Your task to perform on an android device: Show me the alarms in the clock app Image 0: 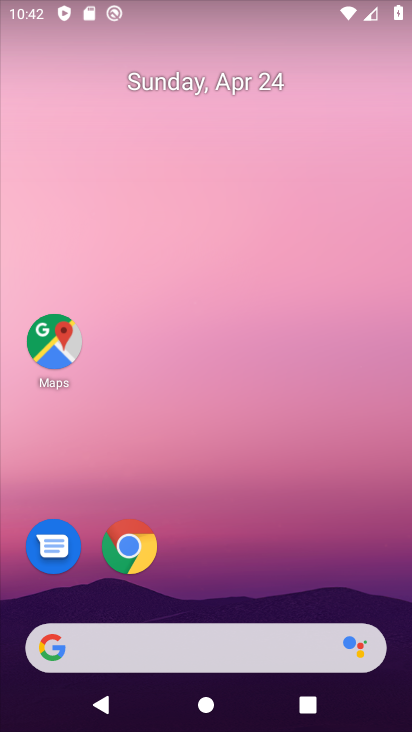
Step 0: drag from (303, 395) to (283, 148)
Your task to perform on an android device: Show me the alarms in the clock app Image 1: 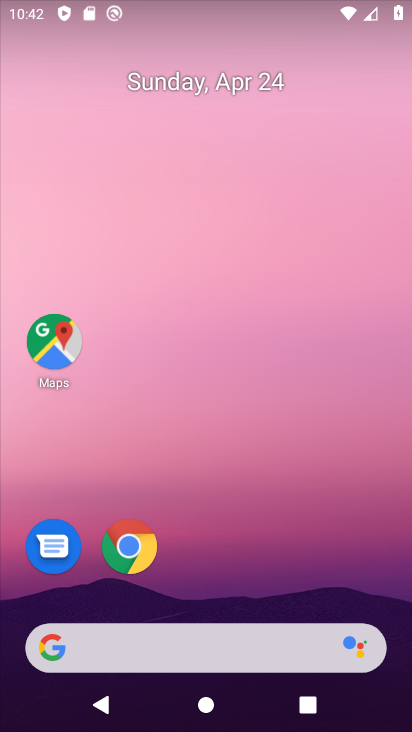
Step 1: drag from (214, 605) to (234, 152)
Your task to perform on an android device: Show me the alarms in the clock app Image 2: 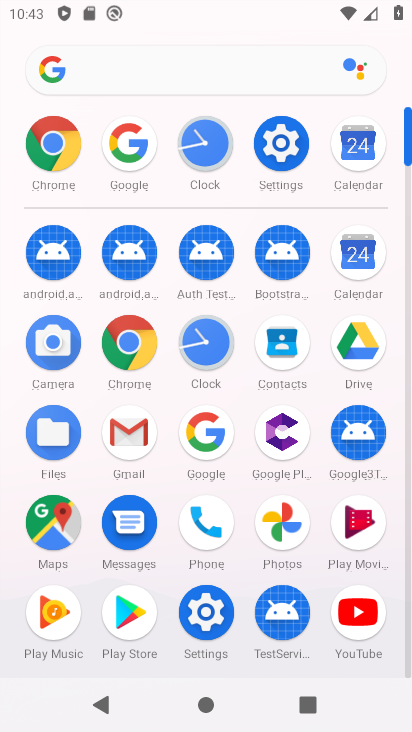
Step 2: click (210, 351)
Your task to perform on an android device: Show me the alarms in the clock app Image 3: 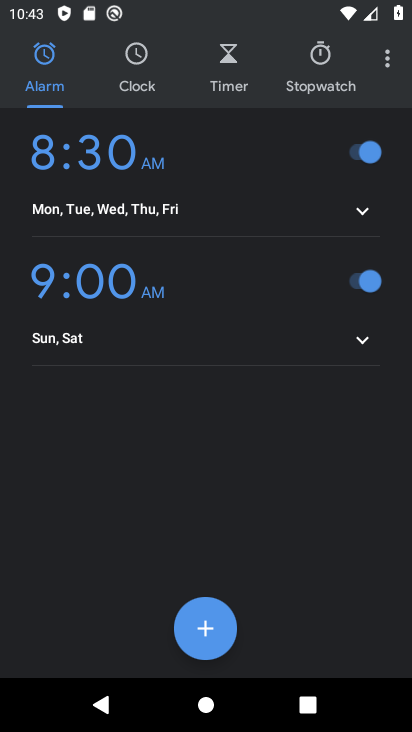
Step 3: task complete